Your task to perform on an android device: Go to Google Image 0: 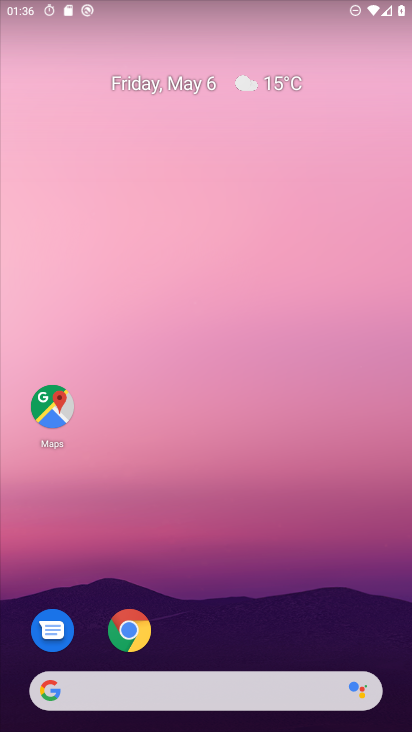
Step 0: drag from (290, 619) to (187, 151)
Your task to perform on an android device: Go to Google Image 1: 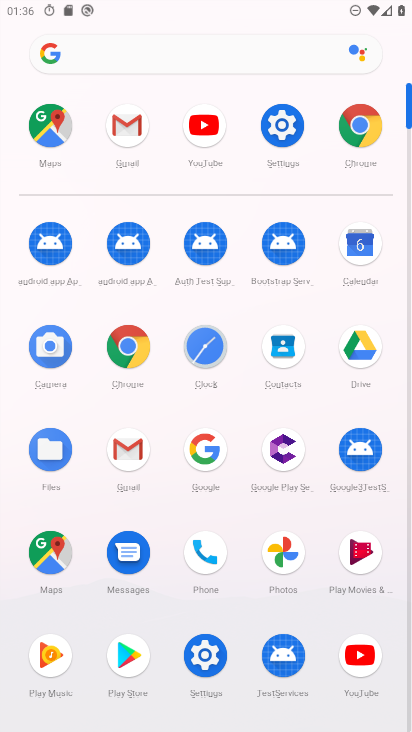
Step 1: click (197, 446)
Your task to perform on an android device: Go to Google Image 2: 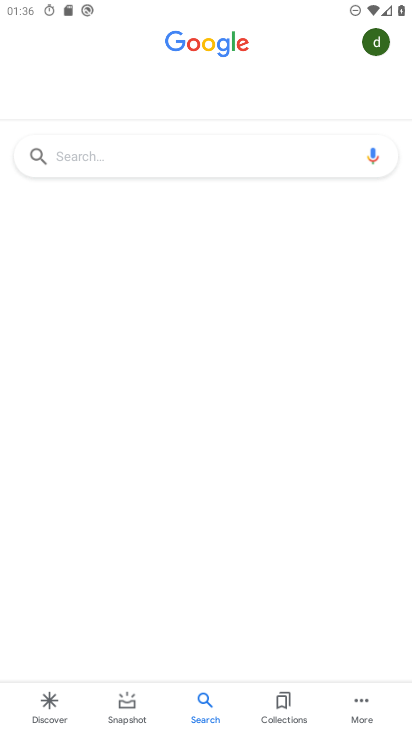
Step 2: task complete